Your task to perform on an android device: Show me the alarms in the clock app Image 0: 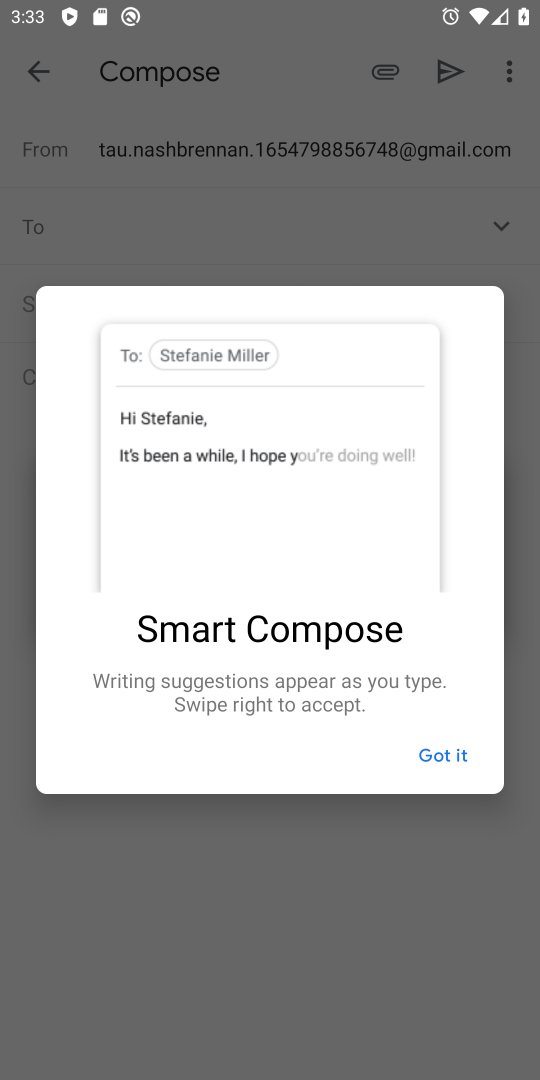
Step 0: press home button
Your task to perform on an android device: Show me the alarms in the clock app Image 1: 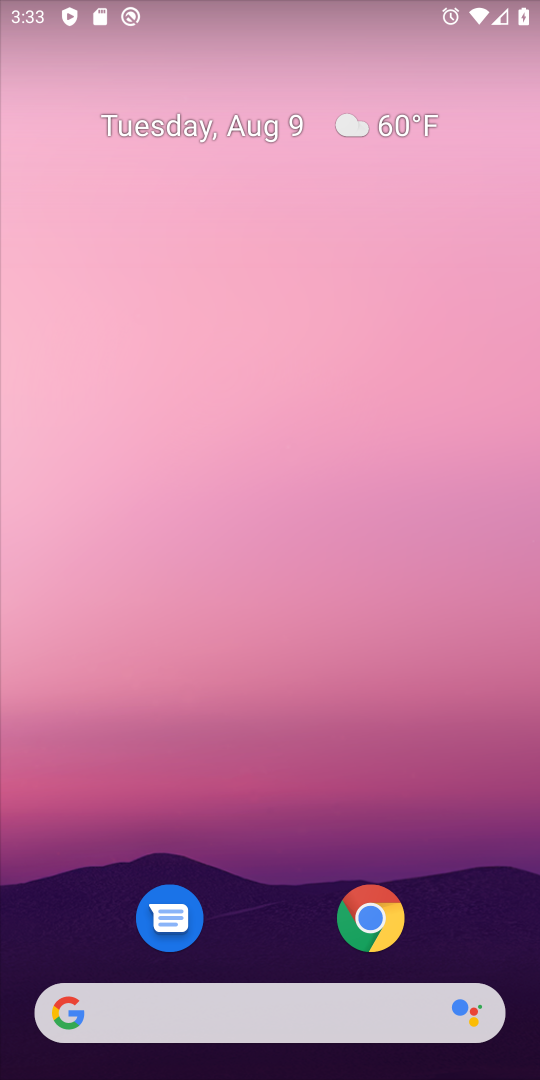
Step 1: drag from (341, 1025) to (385, 262)
Your task to perform on an android device: Show me the alarms in the clock app Image 2: 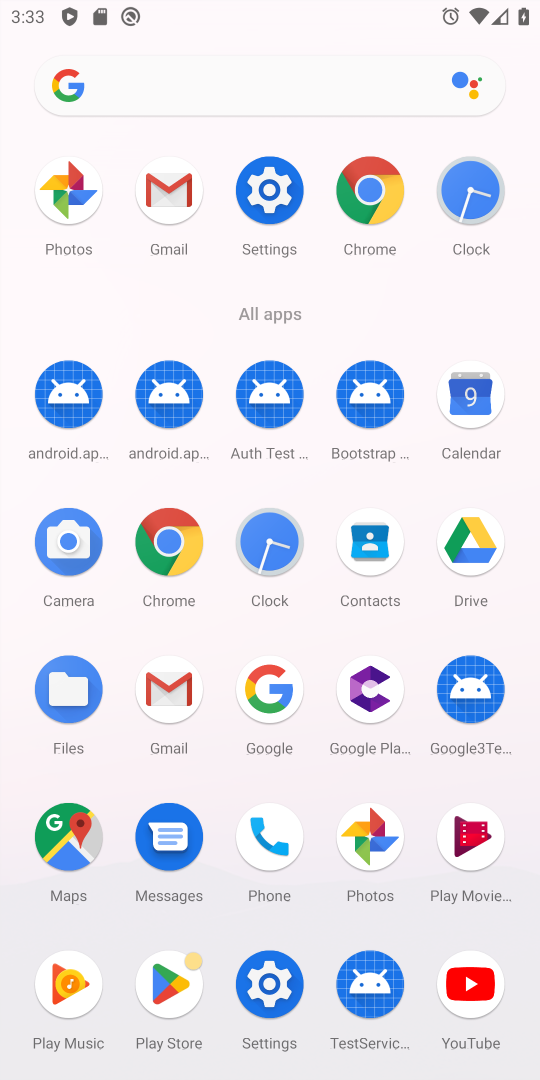
Step 2: click (264, 553)
Your task to perform on an android device: Show me the alarms in the clock app Image 3: 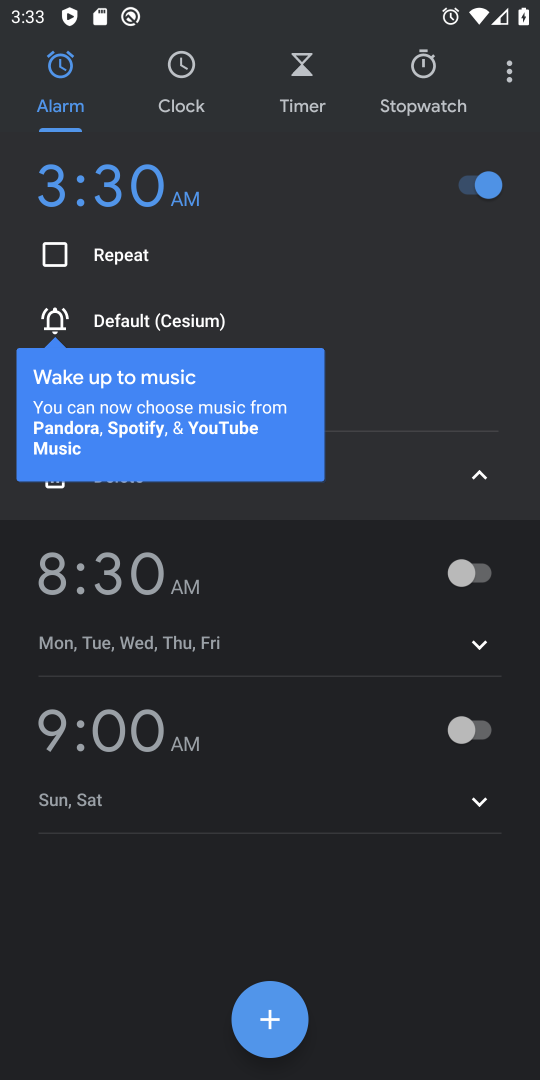
Step 3: task complete